Your task to perform on an android device: turn on the 12-hour format for clock Image 0: 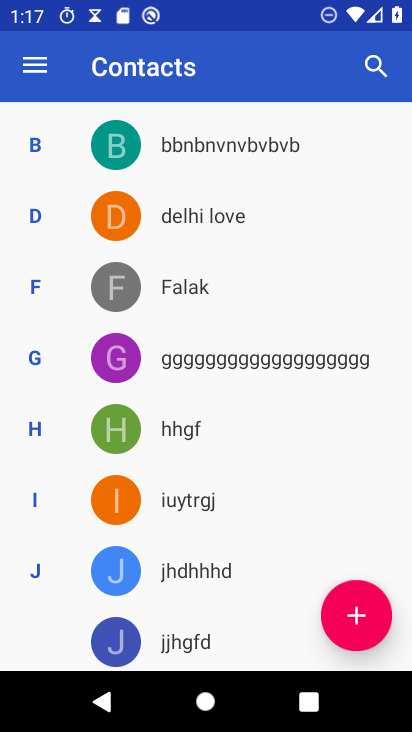
Step 0: press home button
Your task to perform on an android device: turn on the 12-hour format for clock Image 1: 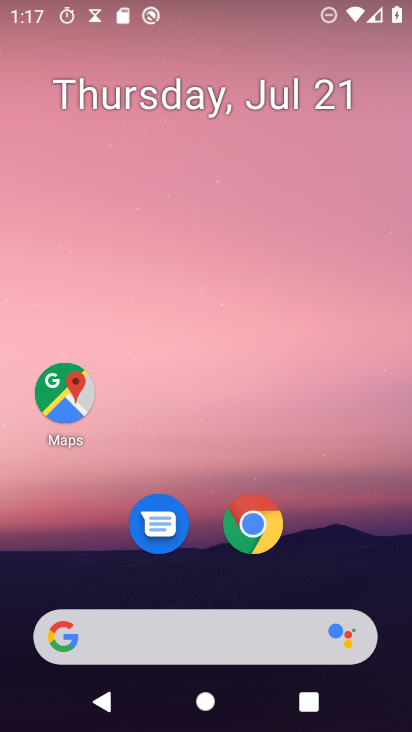
Step 1: drag from (194, 653) to (305, 241)
Your task to perform on an android device: turn on the 12-hour format for clock Image 2: 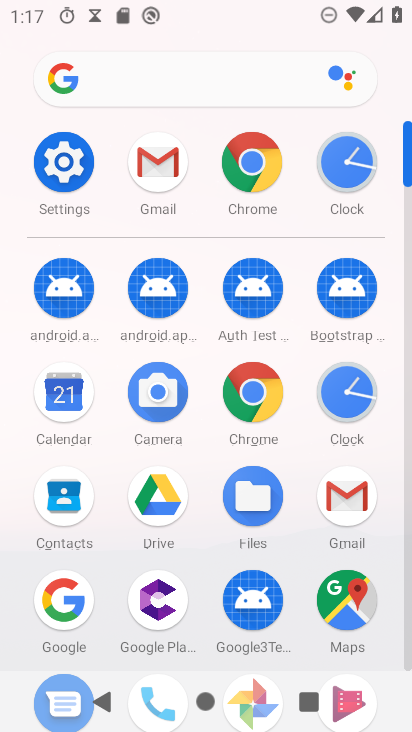
Step 2: click (345, 395)
Your task to perform on an android device: turn on the 12-hour format for clock Image 3: 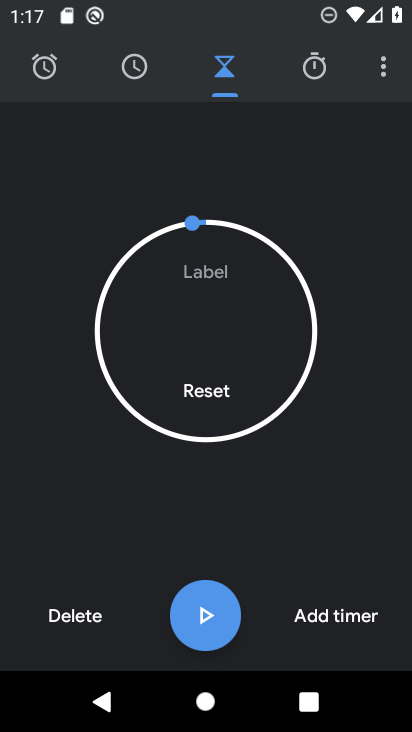
Step 3: click (375, 67)
Your task to perform on an android device: turn on the 12-hour format for clock Image 4: 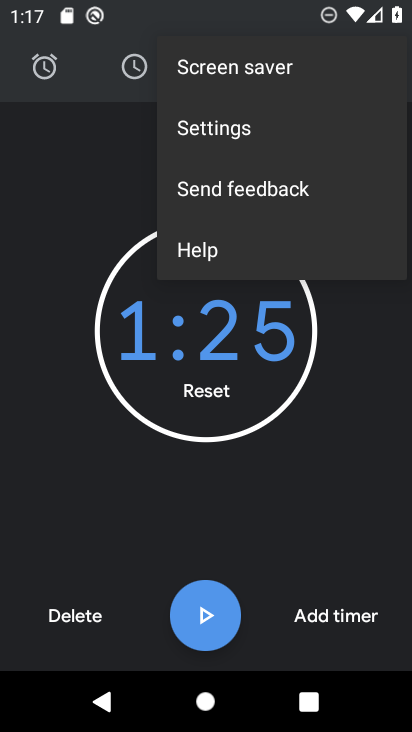
Step 4: click (228, 140)
Your task to perform on an android device: turn on the 12-hour format for clock Image 5: 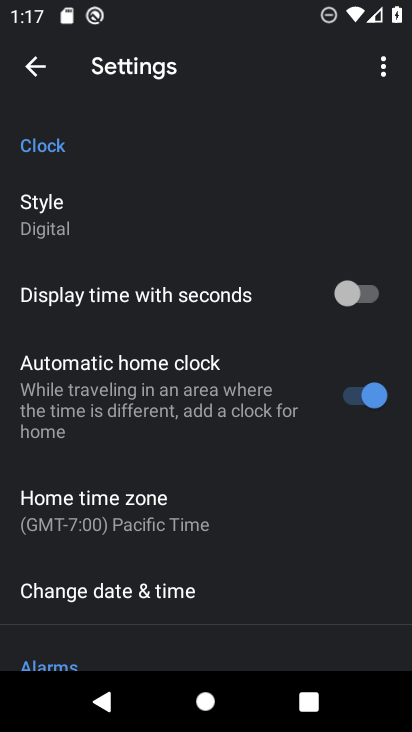
Step 5: drag from (217, 539) to (231, 282)
Your task to perform on an android device: turn on the 12-hour format for clock Image 6: 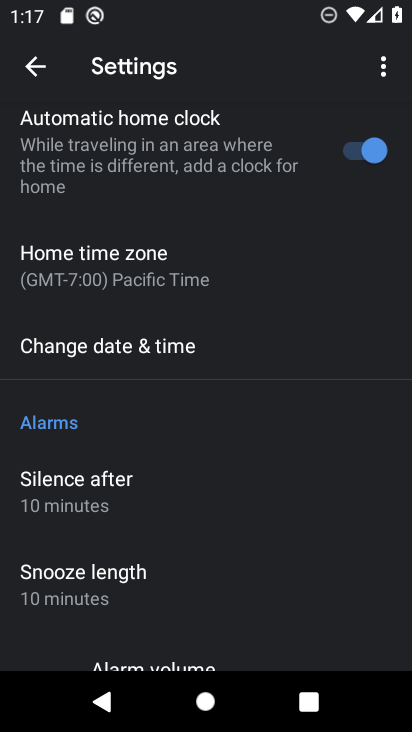
Step 6: click (138, 359)
Your task to perform on an android device: turn on the 12-hour format for clock Image 7: 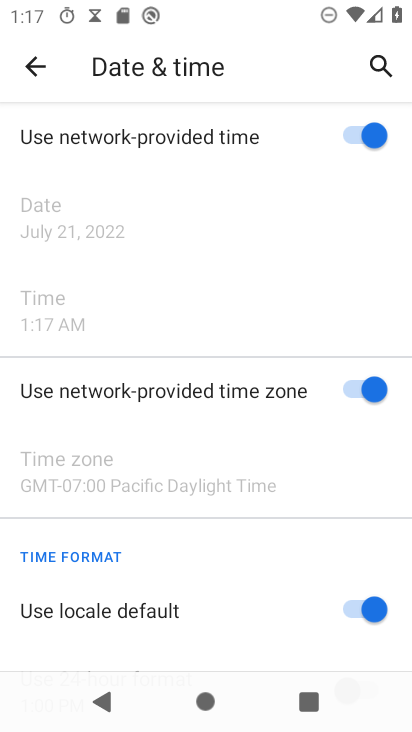
Step 7: task complete